Your task to perform on an android device: turn on priority inbox in the gmail app Image 0: 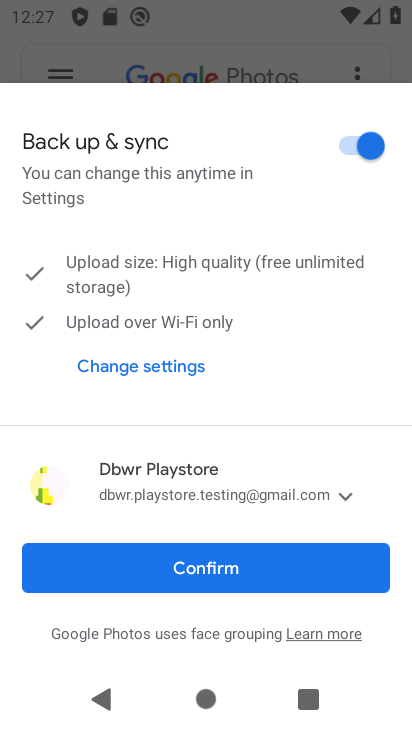
Step 0: press home button
Your task to perform on an android device: turn on priority inbox in the gmail app Image 1: 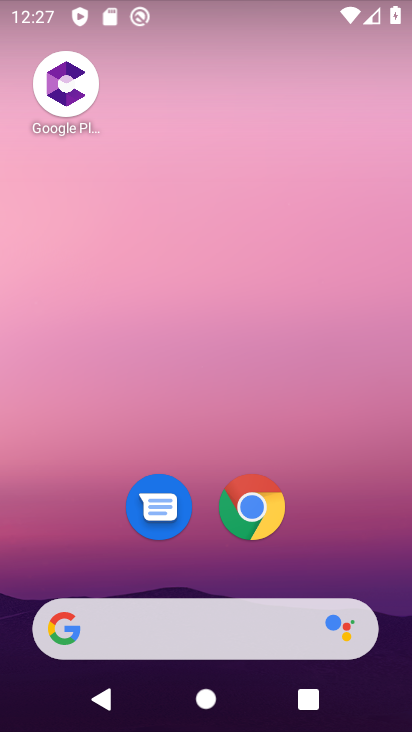
Step 1: drag from (199, 551) to (180, 97)
Your task to perform on an android device: turn on priority inbox in the gmail app Image 2: 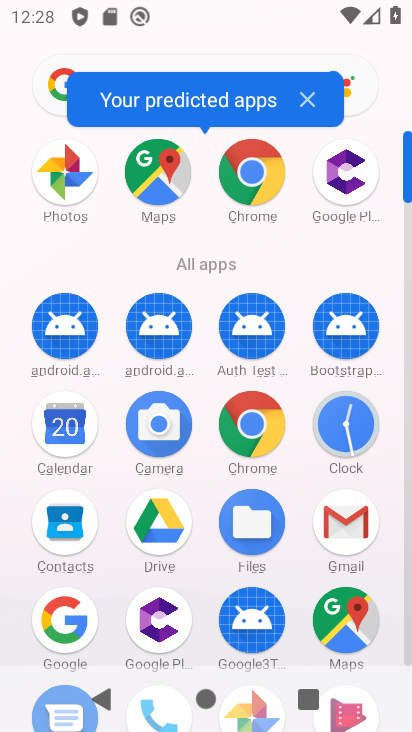
Step 2: click (343, 528)
Your task to perform on an android device: turn on priority inbox in the gmail app Image 3: 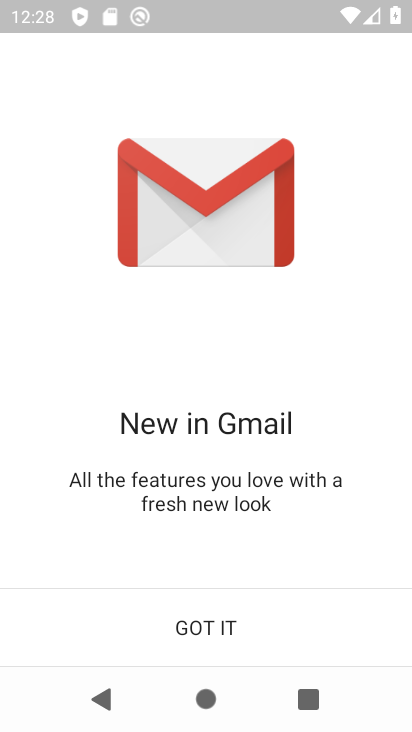
Step 3: click (167, 656)
Your task to perform on an android device: turn on priority inbox in the gmail app Image 4: 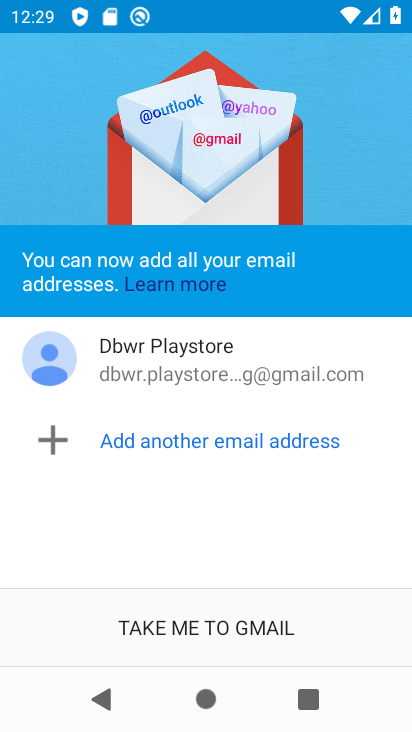
Step 4: click (248, 615)
Your task to perform on an android device: turn on priority inbox in the gmail app Image 5: 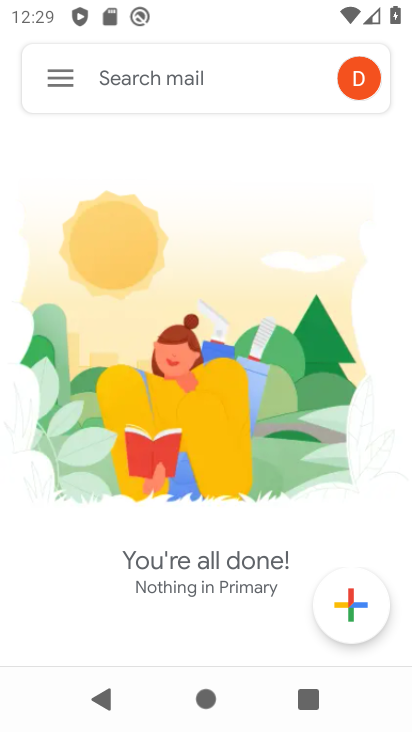
Step 5: click (50, 75)
Your task to perform on an android device: turn on priority inbox in the gmail app Image 6: 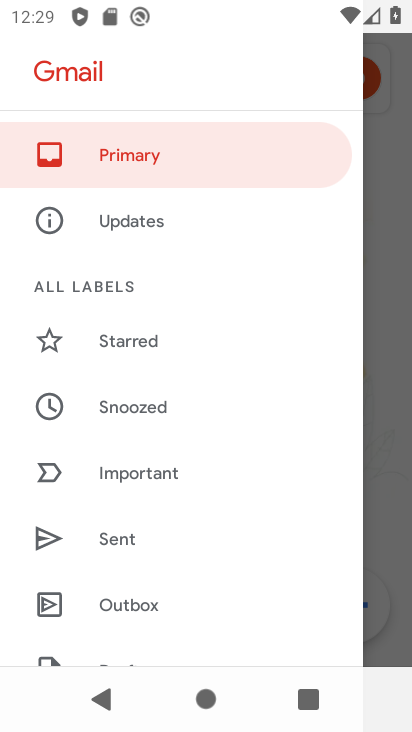
Step 6: click (50, 75)
Your task to perform on an android device: turn on priority inbox in the gmail app Image 7: 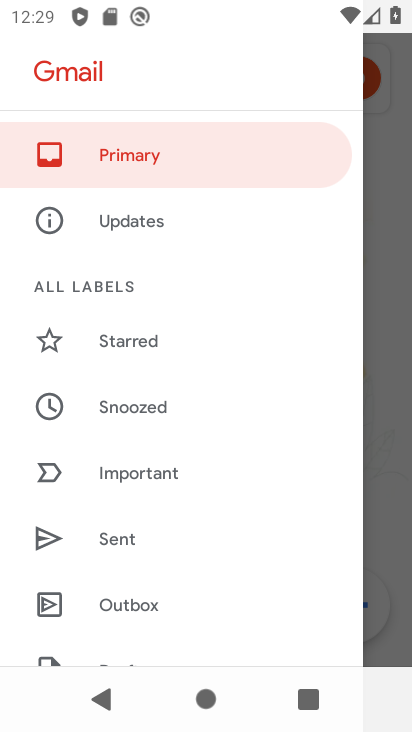
Step 7: drag from (129, 574) to (91, 210)
Your task to perform on an android device: turn on priority inbox in the gmail app Image 8: 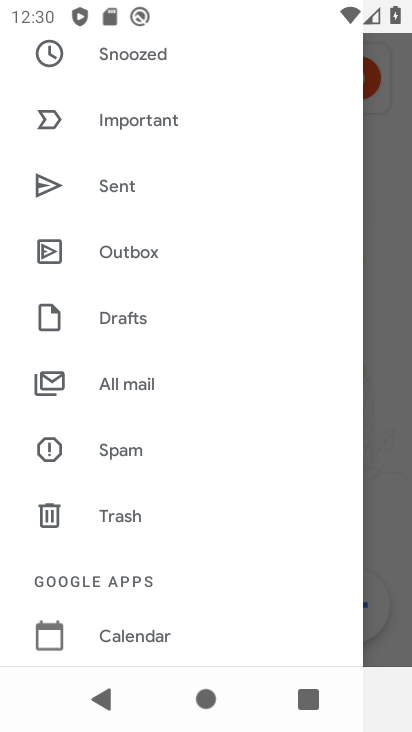
Step 8: drag from (66, 587) to (194, 0)
Your task to perform on an android device: turn on priority inbox in the gmail app Image 9: 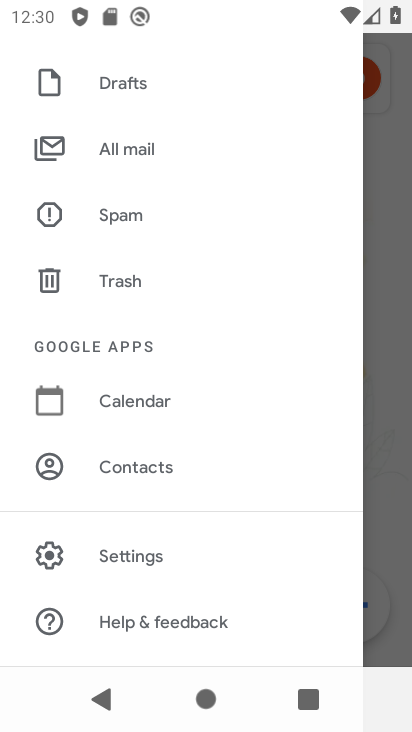
Step 9: click (104, 543)
Your task to perform on an android device: turn on priority inbox in the gmail app Image 10: 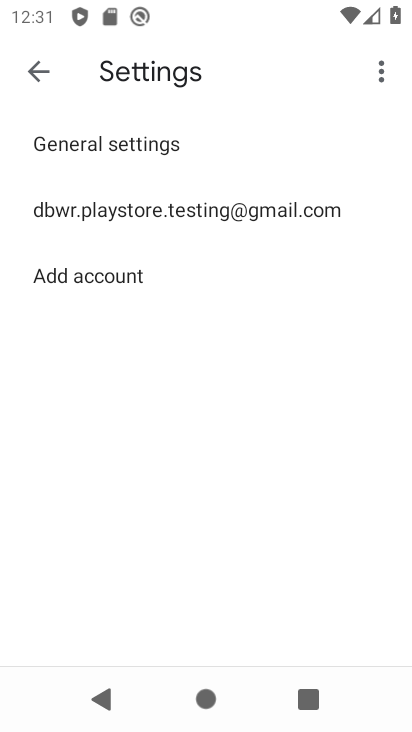
Step 10: click (143, 218)
Your task to perform on an android device: turn on priority inbox in the gmail app Image 11: 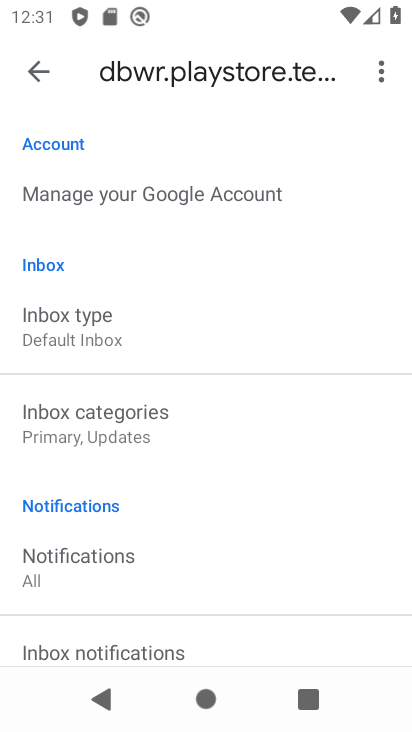
Step 11: click (126, 333)
Your task to perform on an android device: turn on priority inbox in the gmail app Image 12: 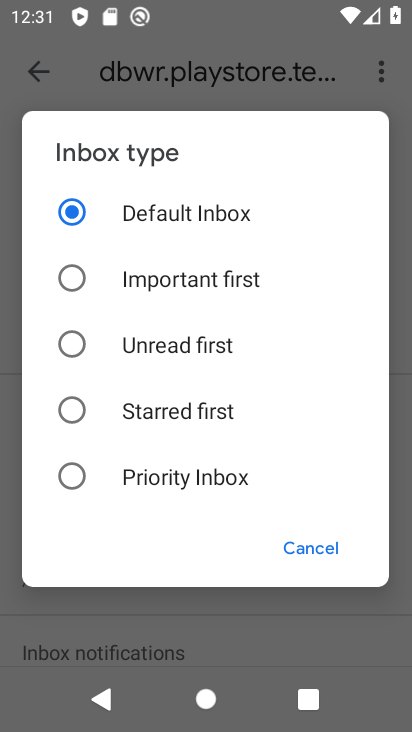
Step 12: click (80, 476)
Your task to perform on an android device: turn on priority inbox in the gmail app Image 13: 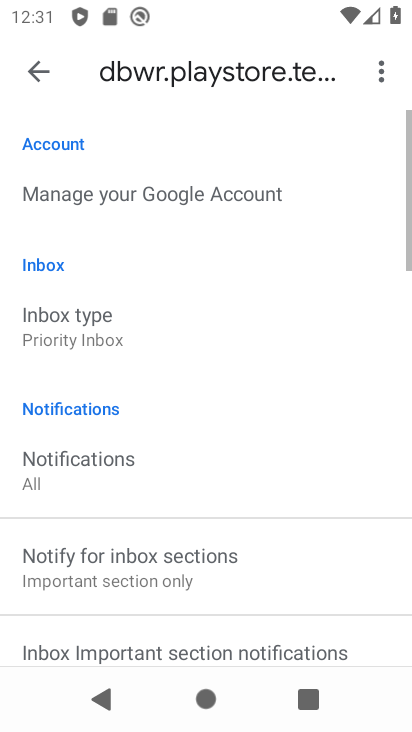
Step 13: task complete